Your task to perform on an android device: Open the phone app and click the voicemail tab. Image 0: 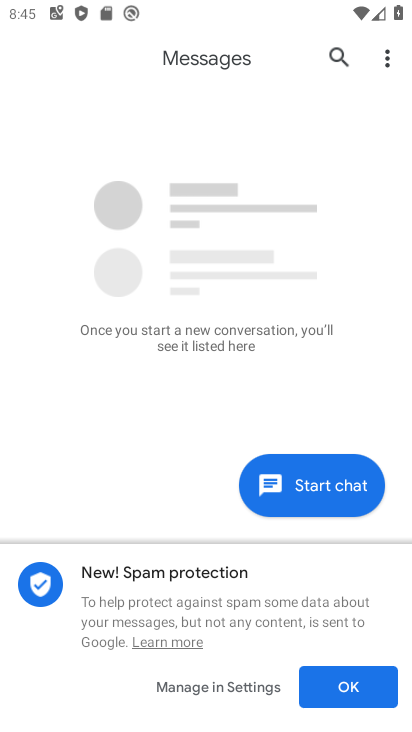
Step 0: press back button
Your task to perform on an android device: Open the phone app and click the voicemail tab. Image 1: 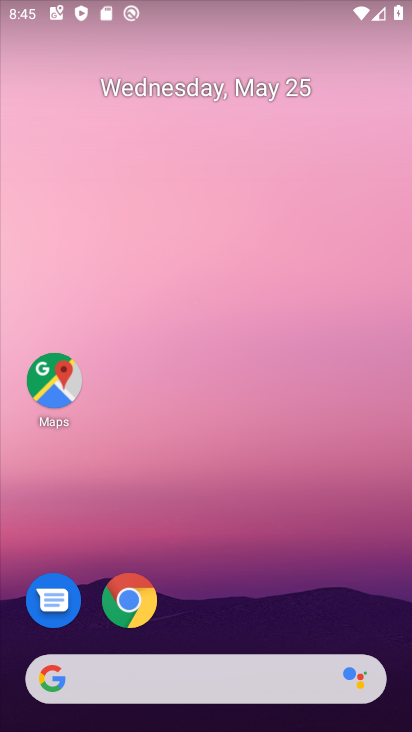
Step 1: drag from (243, 564) to (193, 47)
Your task to perform on an android device: Open the phone app and click the voicemail tab. Image 2: 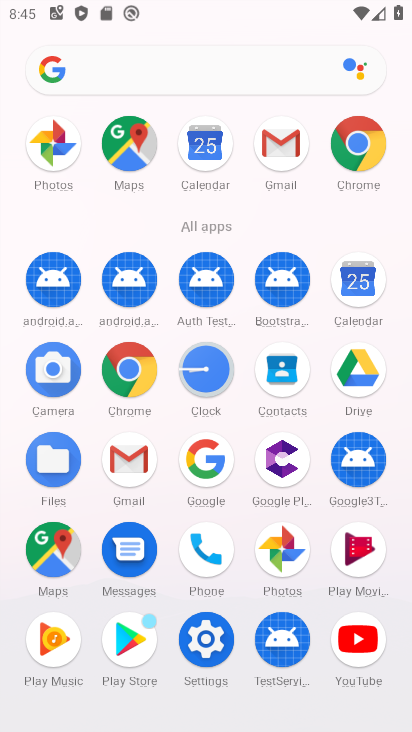
Step 2: drag from (14, 524) to (13, 256)
Your task to perform on an android device: Open the phone app and click the voicemail tab. Image 3: 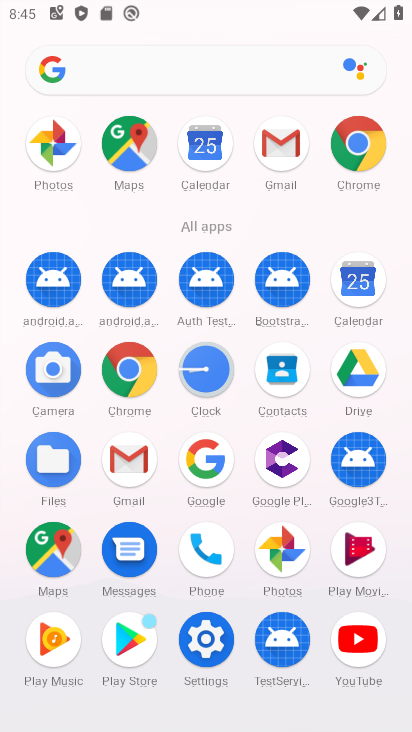
Step 3: click (203, 539)
Your task to perform on an android device: Open the phone app and click the voicemail tab. Image 4: 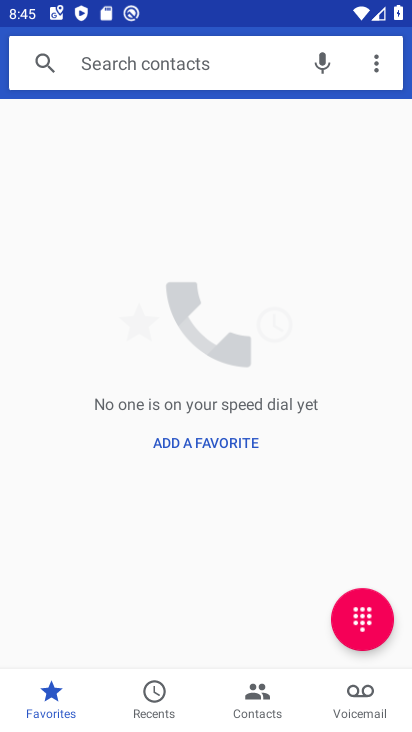
Step 4: click (362, 693)
Your task to perform on an android device: Open the phone app and click the voicemail tab. Image 5: 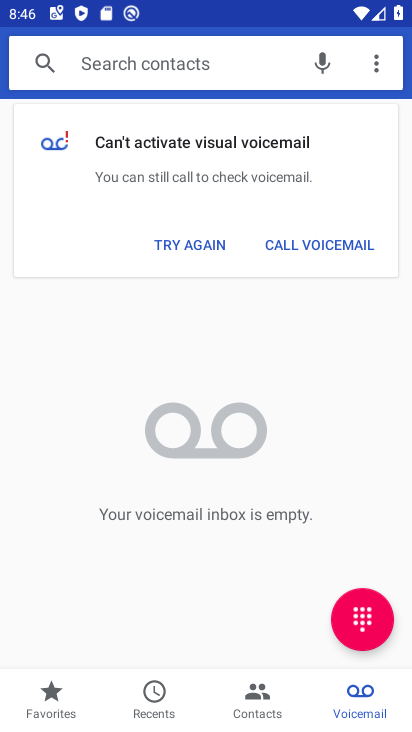
Step 5: task complete